Your task to perform on an android device: What's the weather today? Image 0: 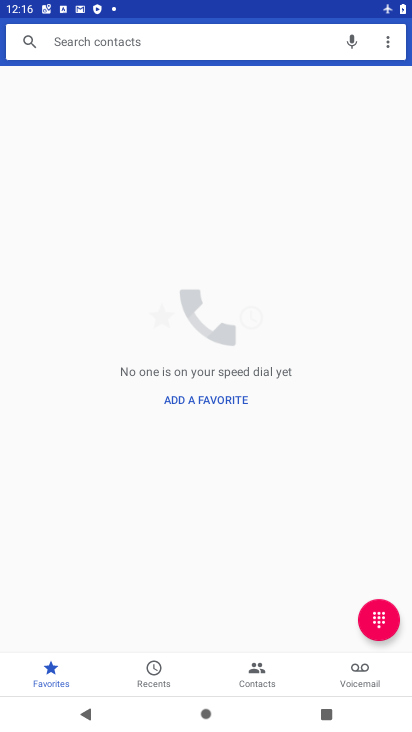
Step 0: press home button
Your task to perform on an android device: What's the weather today? Image 1: 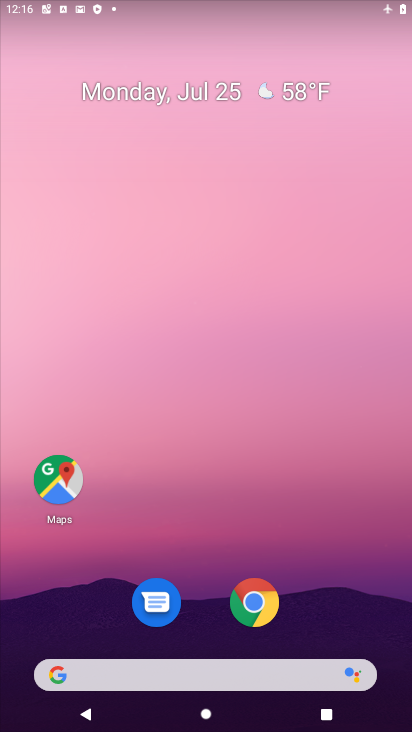
Step 1: drag from (189, 575) to (167, 124)
Your task to perform on an android device: What's the weather today? Image 2: 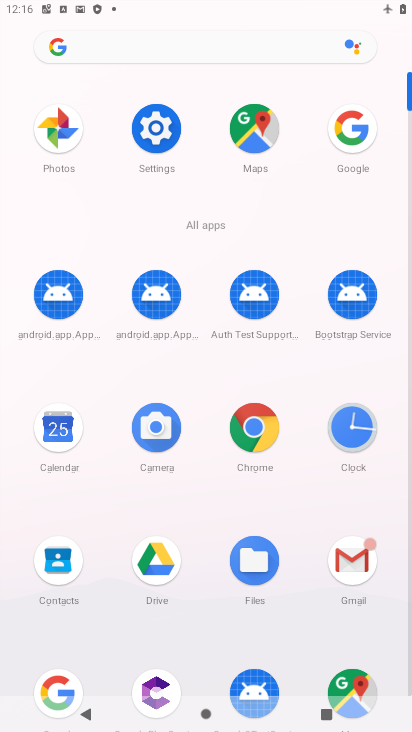
Step 2: click (54, 685)
Your task to perform on an android device: What's the weather today? Image 3: 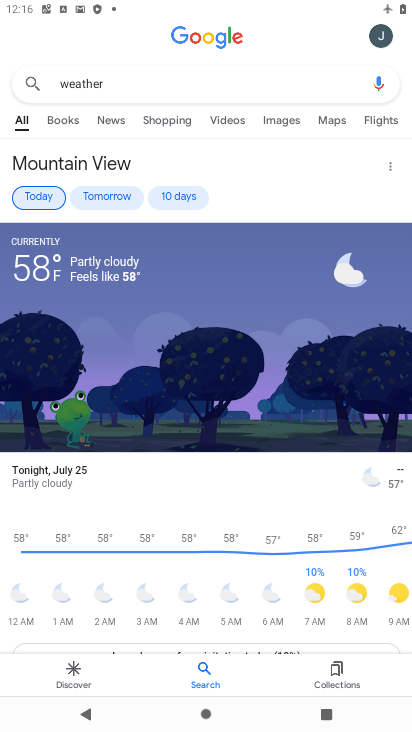
Step 3: task complete